Your task to perform on an android device: toggle sleep mode Image 0: 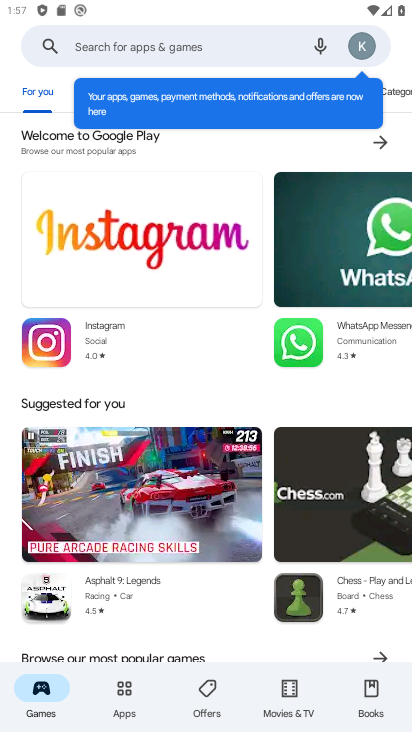
Step 0: press home button
Your task to perform on an android device: toggle sleep mode Image 1: 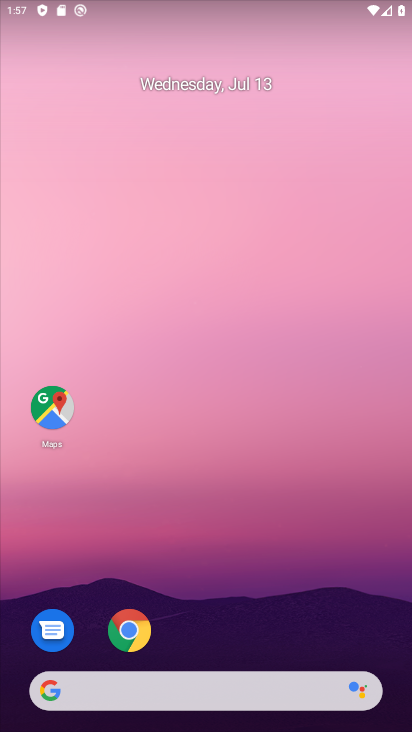
Step 1: drag from (207, 684) to (201, 41)
Your task to perform on an android device: toggle sleep mode Image 2: 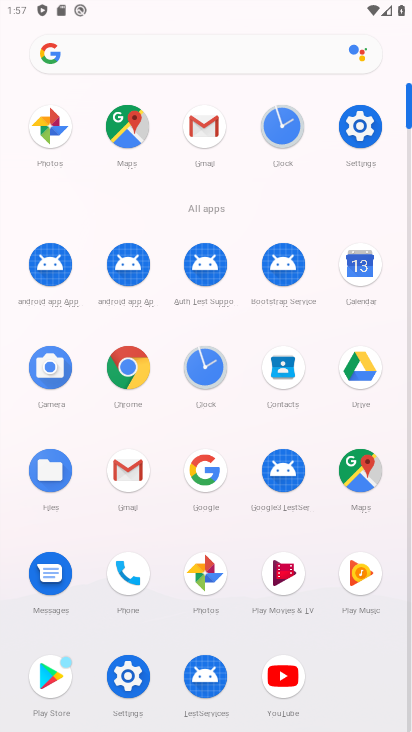
Step 2: click (139, 678)
Your task to perform on an android device: toggle sleep mode Image 3: 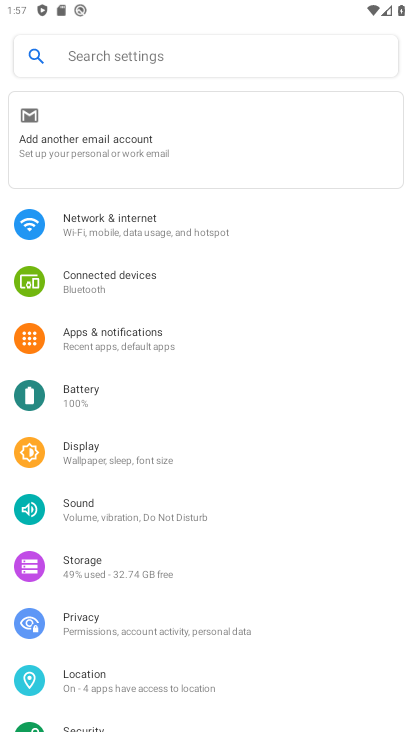
Step 3: click (109, 464)
Your task to perform on an android device: toggle sleep mode Image 4: 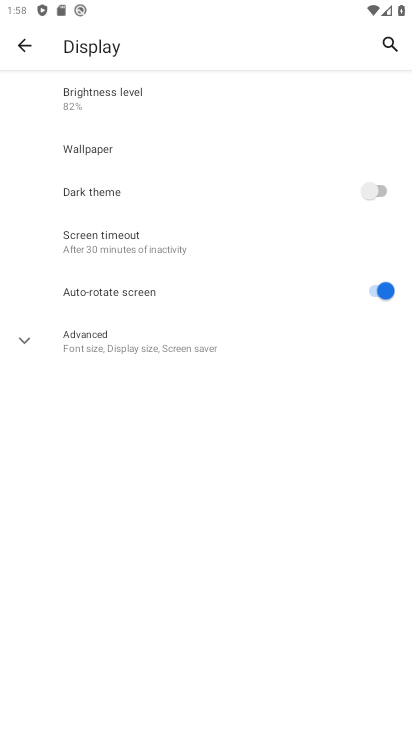
Step 4: click (120, 342)
Your task to perform on an android device: toggle sleep mode Image 5: 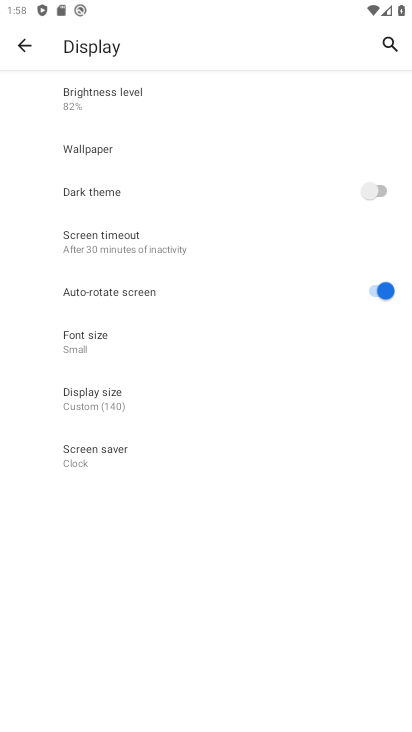
Step 5: task complete